Your task to perform on an android device: turn off sleep mode Image 0: 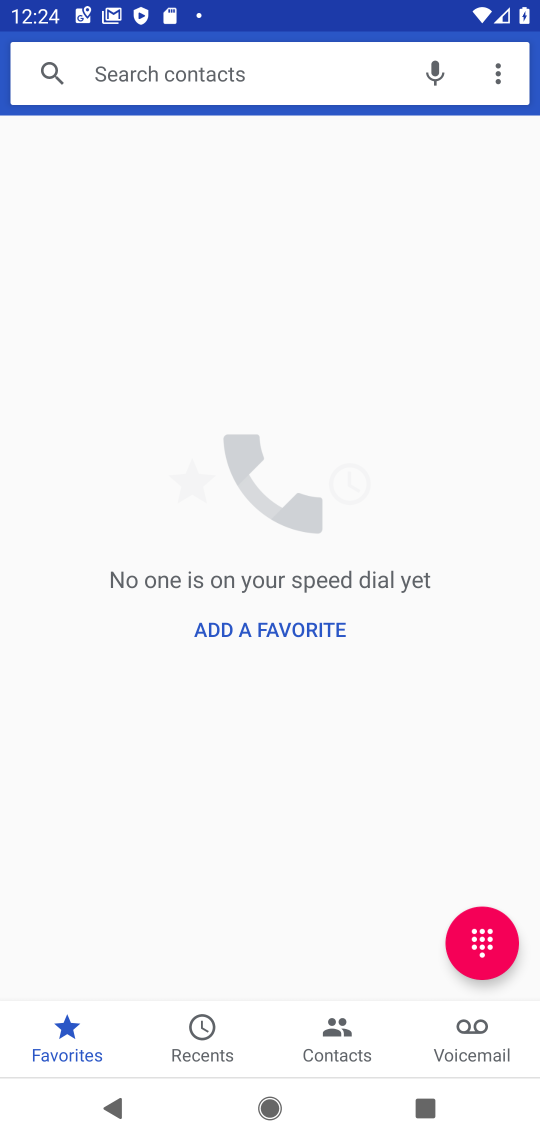
Step 0: press home button
Your task to perform on an android device: turn off sleep mode Image 1: 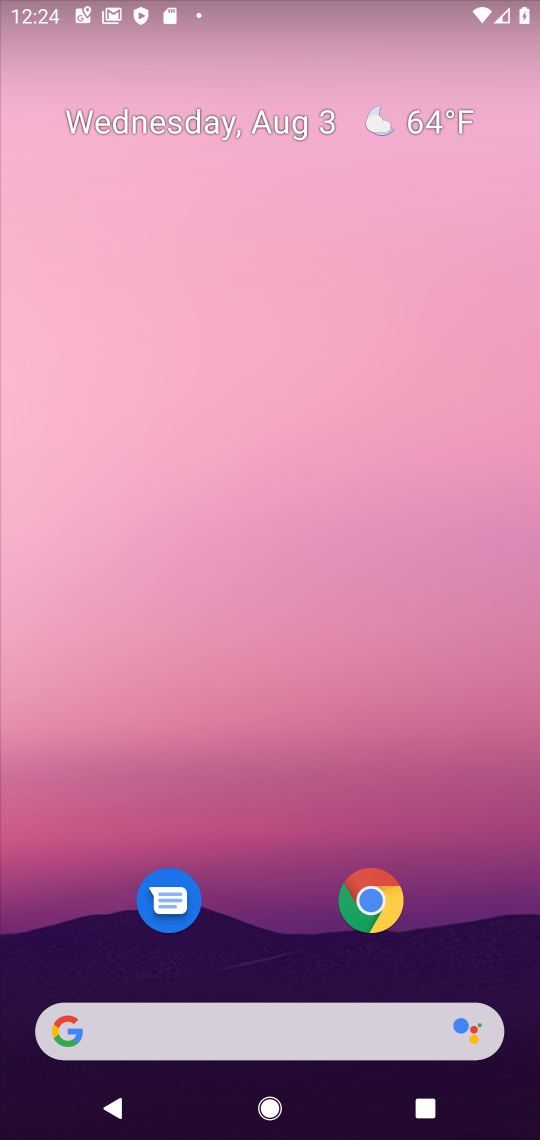
Step 1: drag from (288, 332) to (305, 7)
Your task to perform on an android device: turn off sleep mode Image 2: 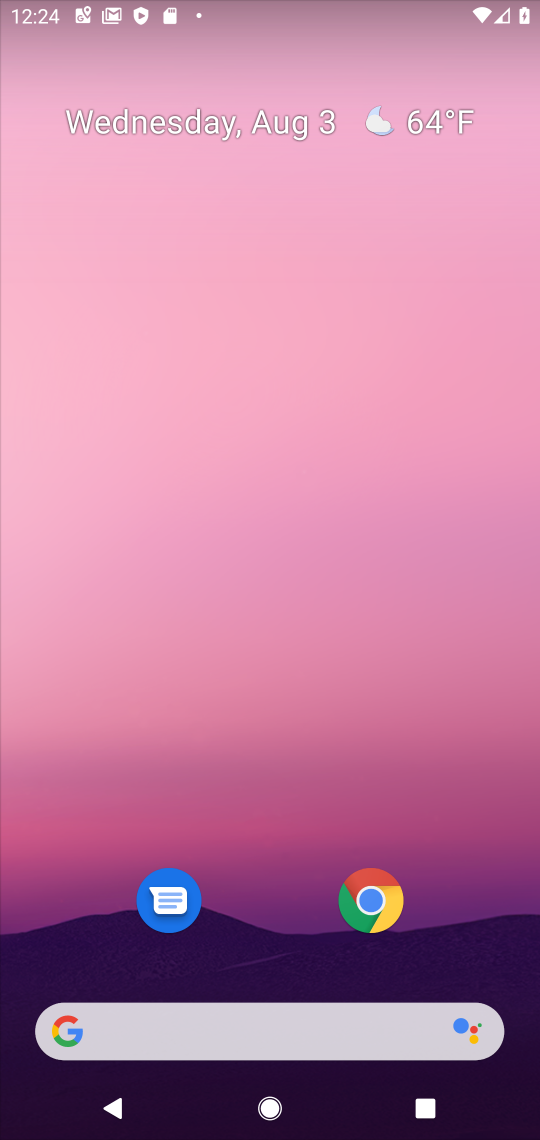
Step 2: drag from (260, 945) to (339, 148)
Your task to perform on an android device: turn off sleep mode Image 3: 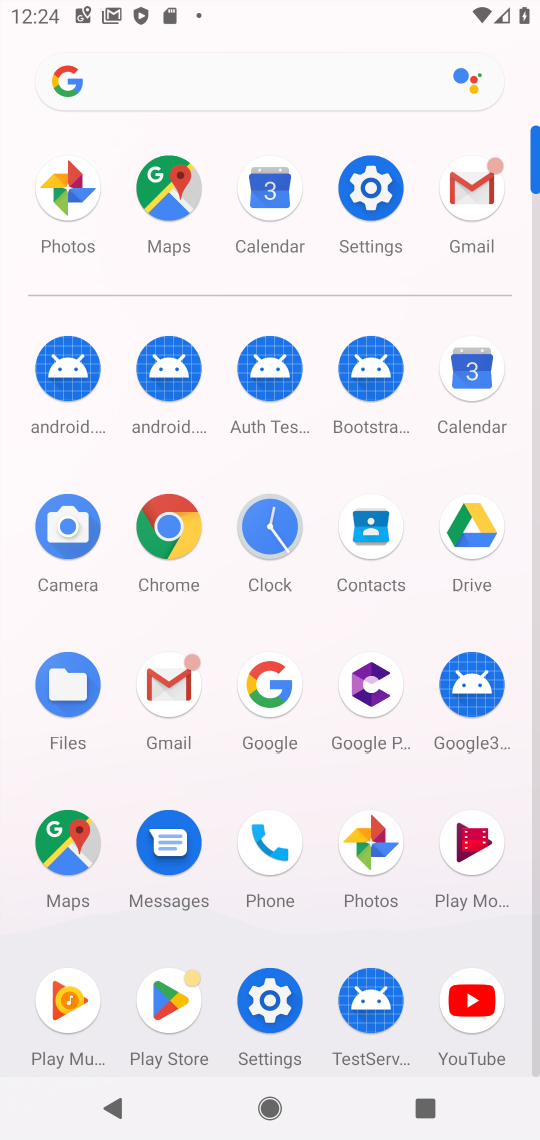
Step 3: click (378, 174)
Your task to perform on an android device: turn off sleep mode Image 4: 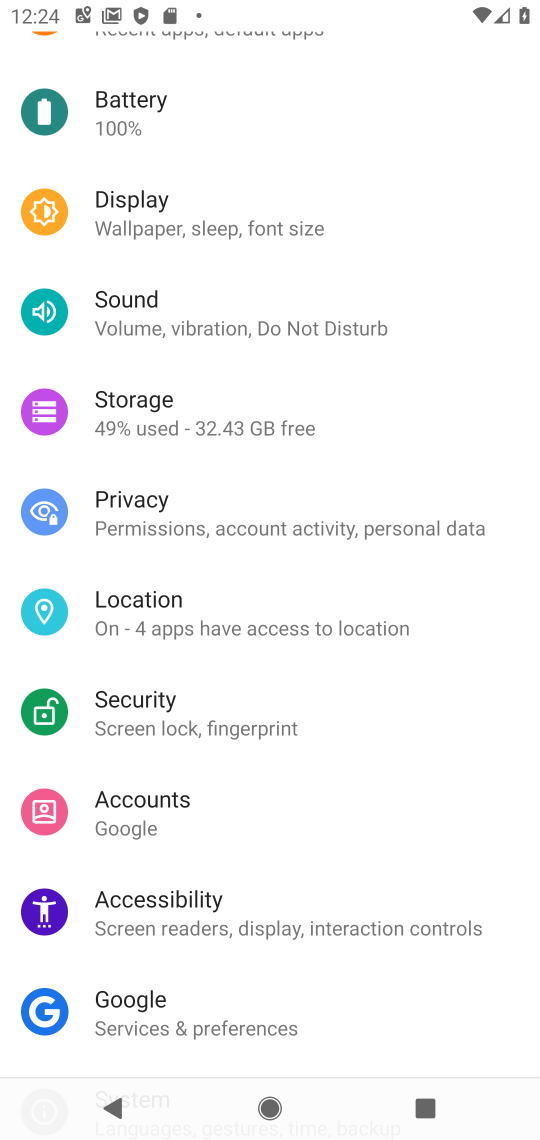
Step 4: click (262, 217)
Your task to perform on an android device: turn off sleep mode Image 5: 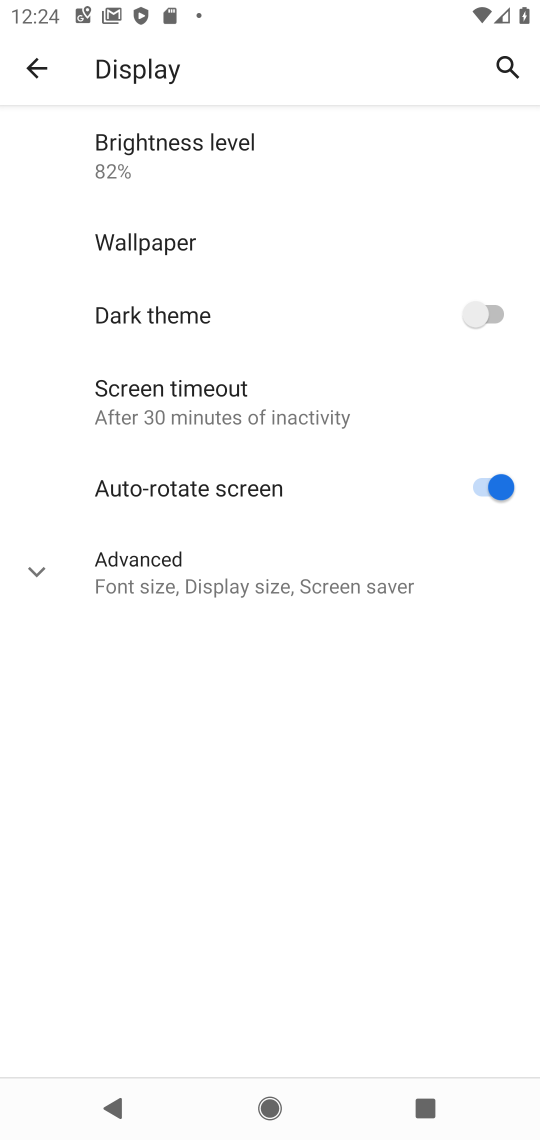
Step 5: click (196, 395)
Your task to perform on an android device: turn off sleep mode Image 6: 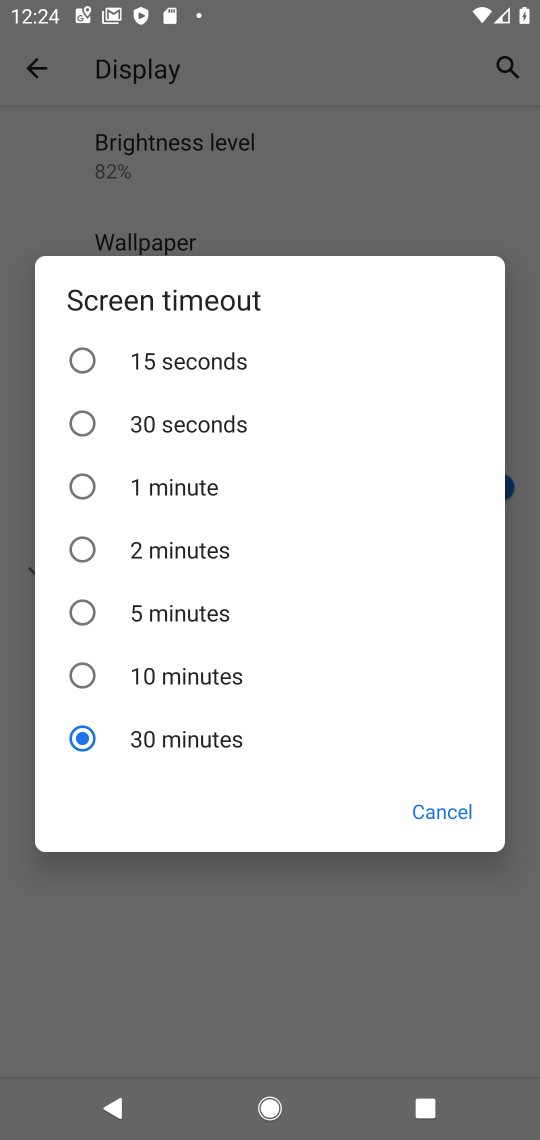
Step 6: task complete